Your task to perform on an android device: turn off priority inbox in the gmail app Image 0: 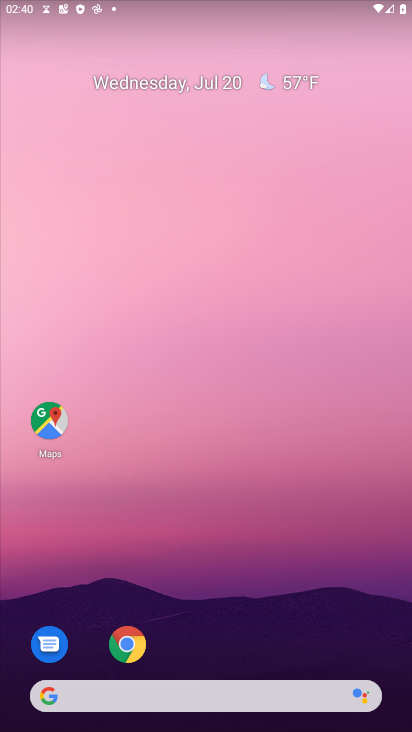
Step 0: drag from (224, 645) to (341, 31)
Your task to perform on an android device: turn off priority inbox in the gmail app Image 1: 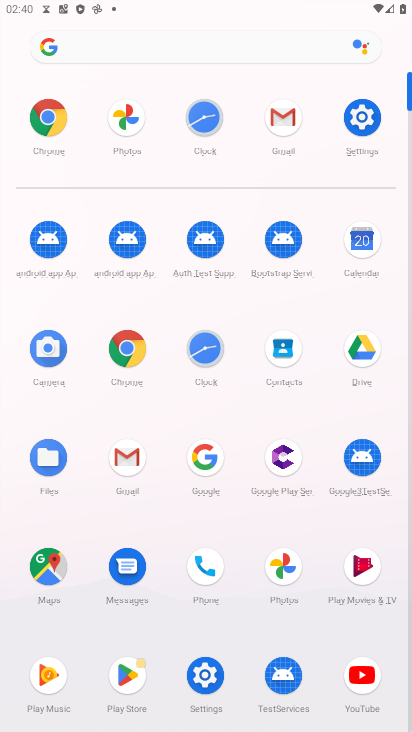
Step 1: click (278, 119)
Your task to perform on an android device: turn off priority inbox in the gmail app Image 2: 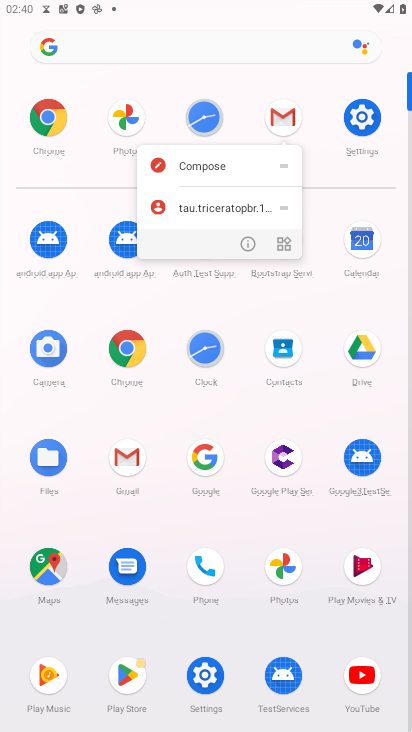
Step 2: click (278, 119)
Your task to perform on an android device: turn off priority inbox in the gmail app Image 3: 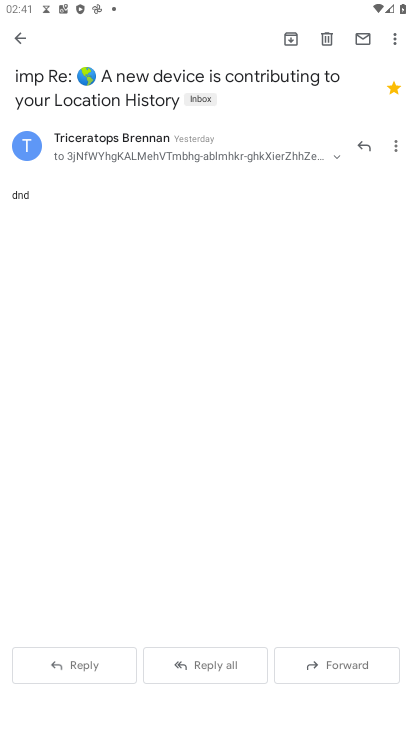
Step 3: click (16, 33)
Your task to perform on an android device: turn off priority inbox in the gmail app Image 4: 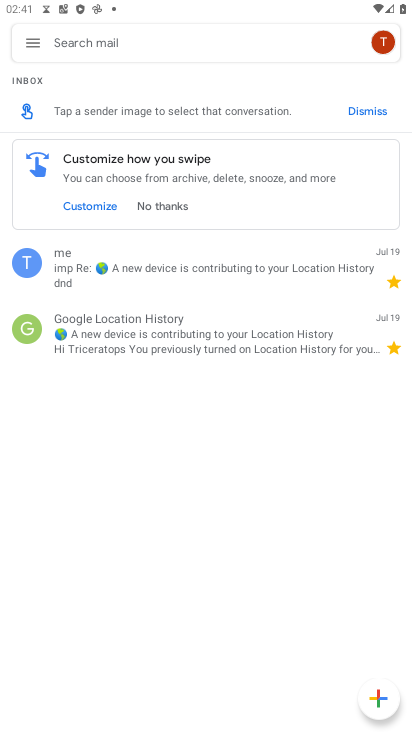
Step 4: click (25, 46)
Your task to perform on an android device: turn off priority inbox in the gmail app Image 5: 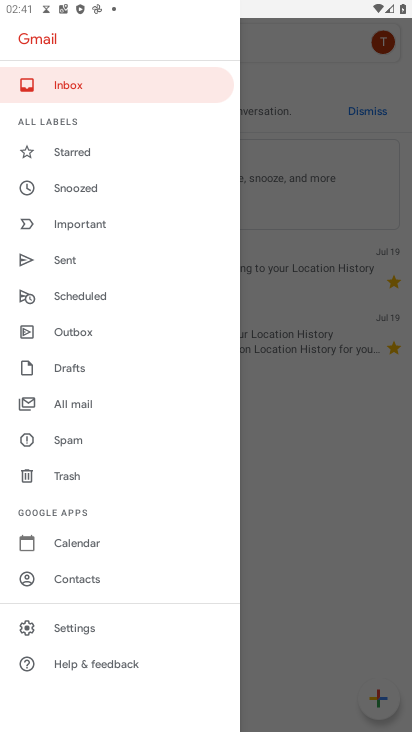
Step 5: click (84, 629)
Your task to perform on an android device: turn off priority inbox in the gmail app Image 6: 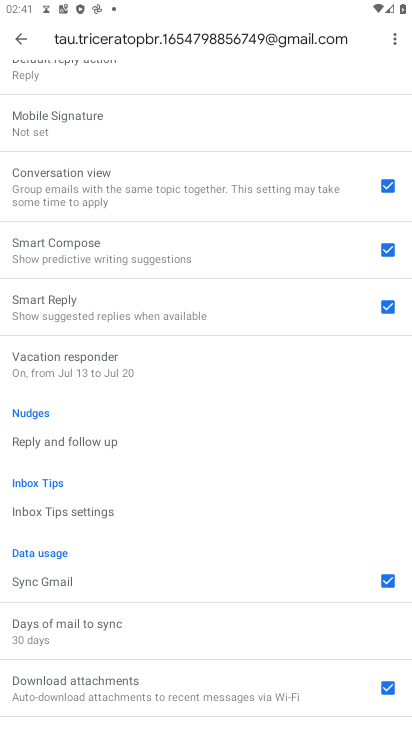
Step 6: drag from (220, 118) to (282, 562)
Your task to perform on an android device: turn off priority inbox in the gmail app Image 7: 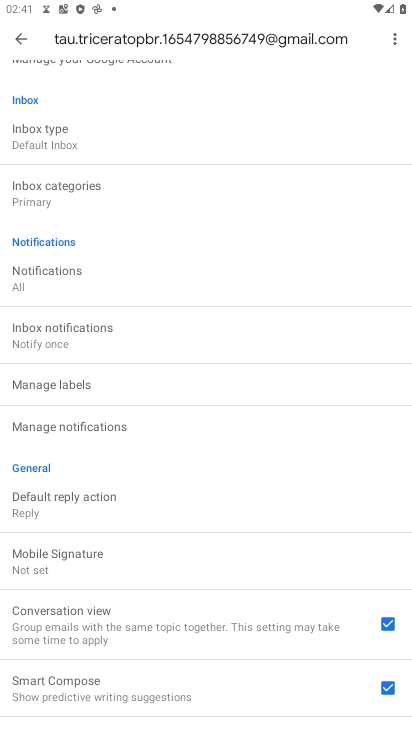
Step 7: click (69, 140)
Your task to perform on an android device: turn off priority inbox in the gmail app Image 8: 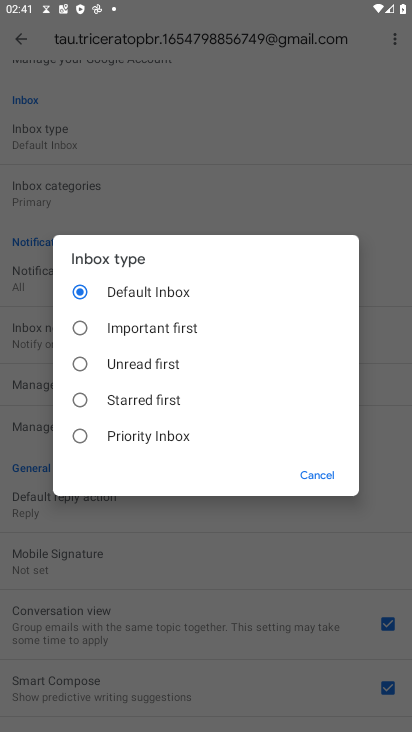
Step 8: task complete